Your task to perform on an android device: Go to network settings Image 0: 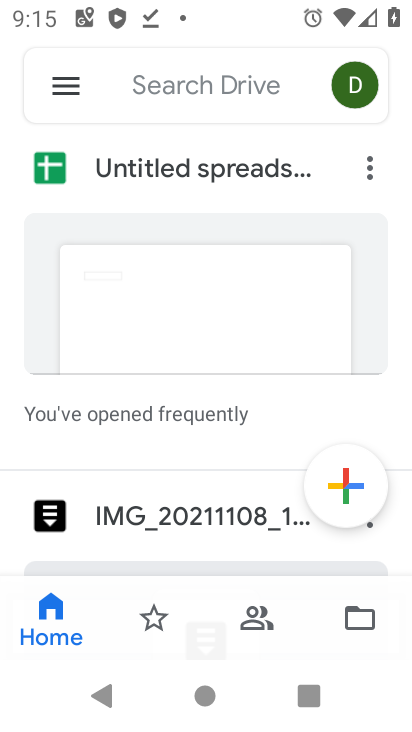
Step 0: press back button
Your task to perform on an android device: Go to network settings Image 1: 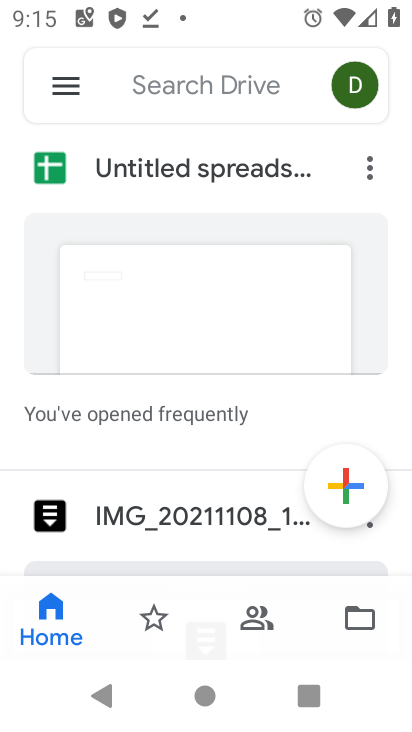
Step 1: press back button
Your task to perform on an android device: Go to network settings Image 2: 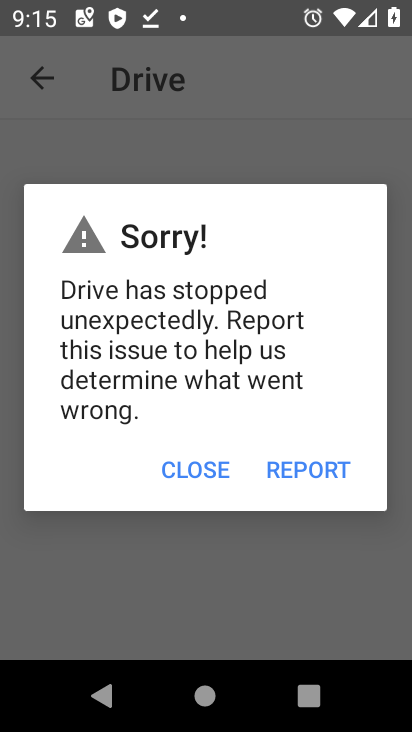
Step 2: press back button
Your task to perform on an android device: Go to network settings Image 3: 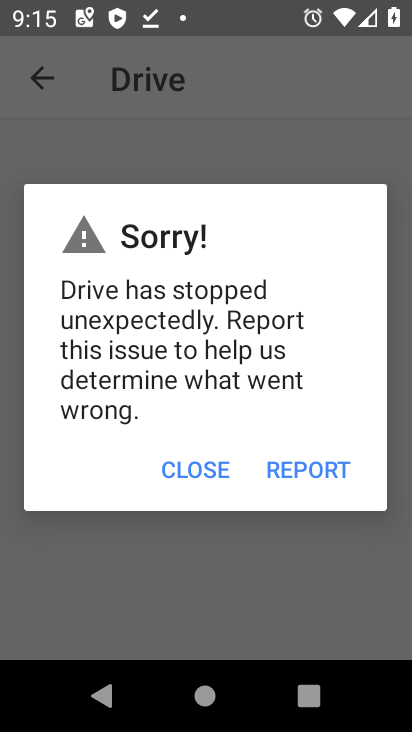
Step 3: click (191, 484)
Your task to perform on an android device: Go to network settings Image 4: 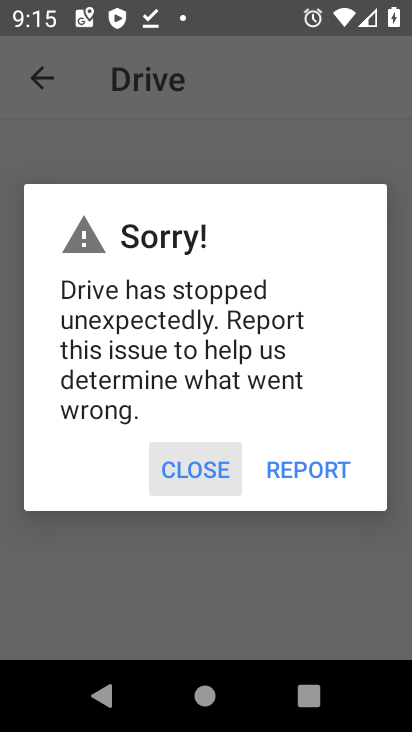
Step 4: click (191, 484)
Your task to perform on an android device: Go to network settings Image 5: 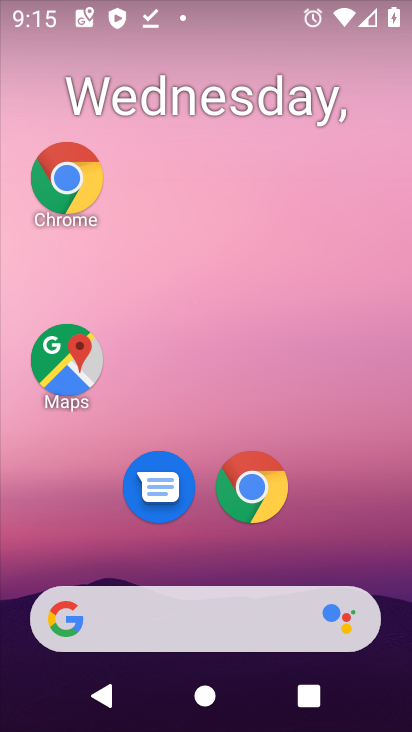
Step 5: drag from (264, 655) to (134, 259)
Your task to perform on an android device: Go to network settings Image 6: 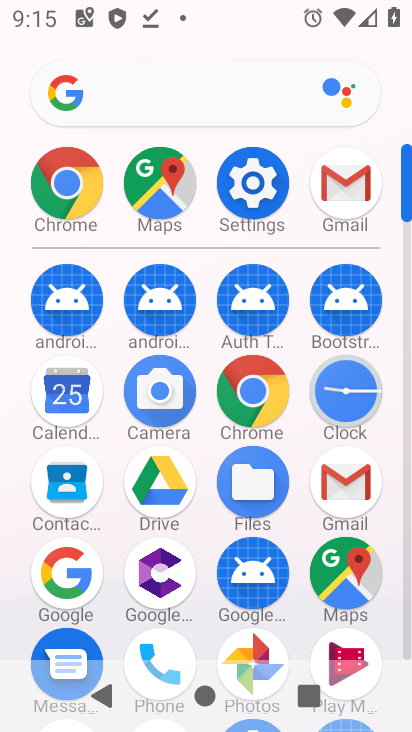
Step 6: click (253, 187)
Your task to perform on an android device: Go to network settings Image 7: 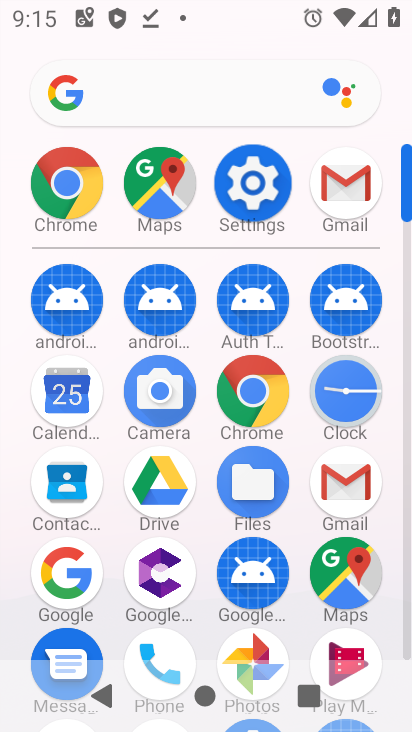
Step 7: click (253, 187)
Your task to perform on an android device: Go to network settings Image 8: 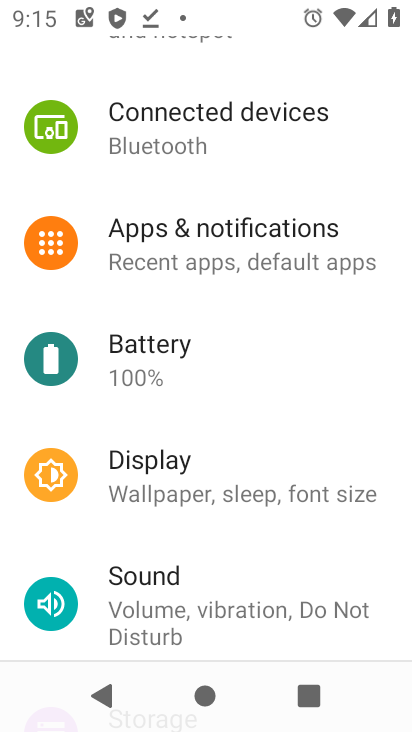
Step 8: click (253, 187)
Your task to perform on an android device: Go to network settings Image 9: 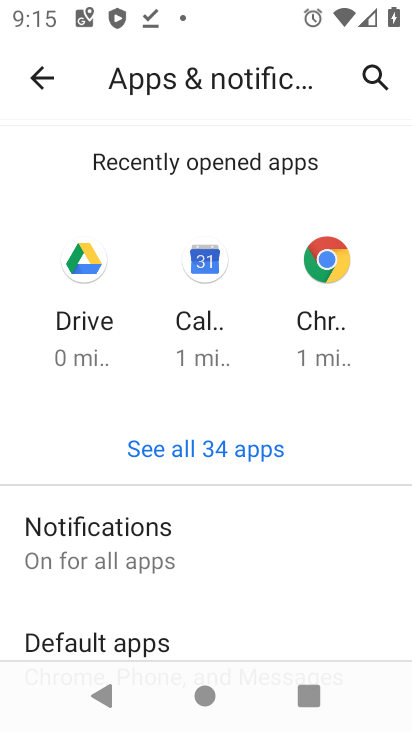
Step 9: click (34, 98)
Your task to perform on an android device: Go to network settings Image 10: 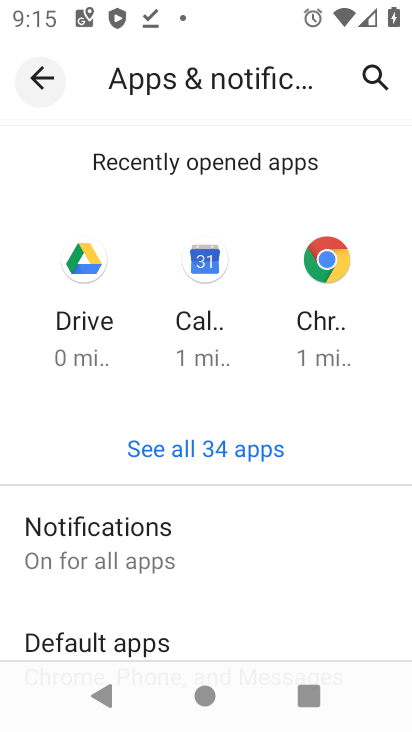
Step 10: click (34, 97)
Your task to perform on an android device: Go to network settings Image 11: 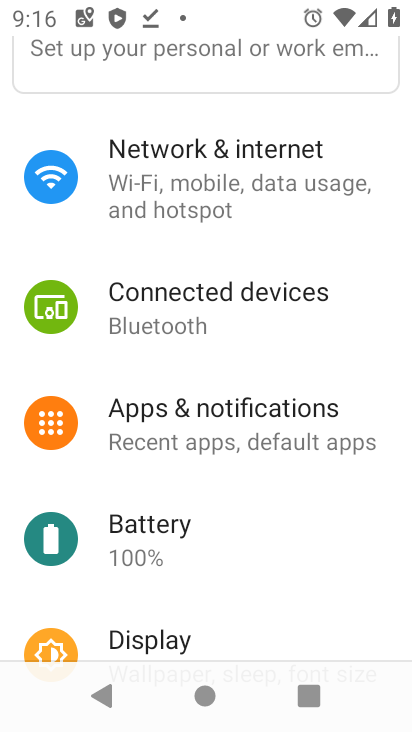
Step 11: click (166, 176)
Your task to perform on an android device: Go to network settings Image 12: 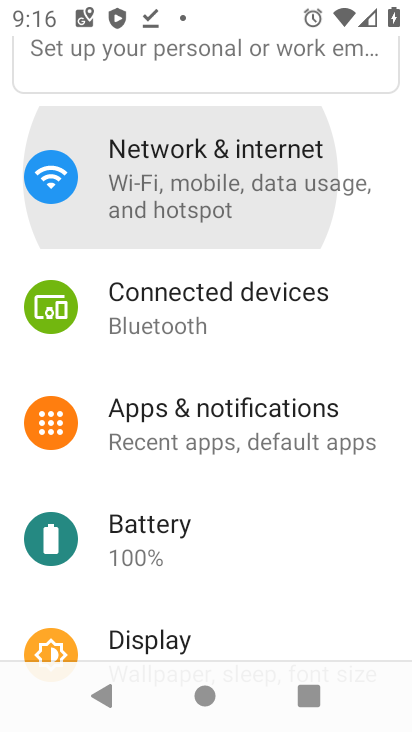
Step 12: click (169, 175)
Your task to perform on an android device: Go to network settings Image 13: 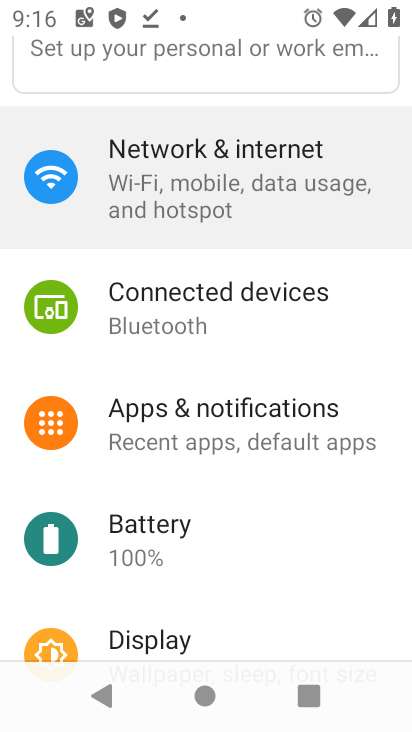
Step 13: click (169, 175)
Your task to perform on an android device: Go to network settings Image 14: 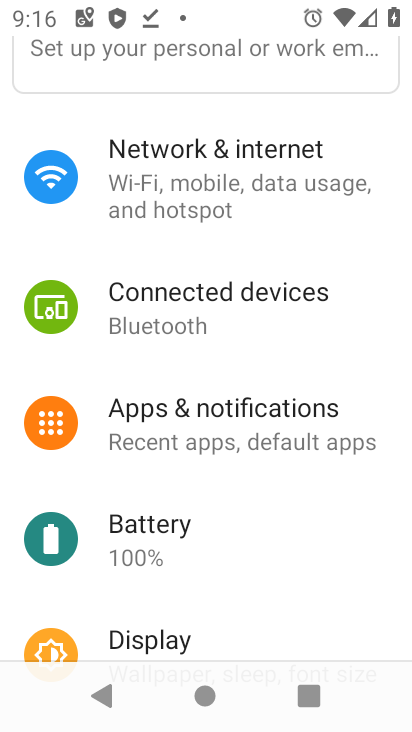
Step 14: click (169, 175)
Your task to perform on an android device: Go to network settings Image 15: 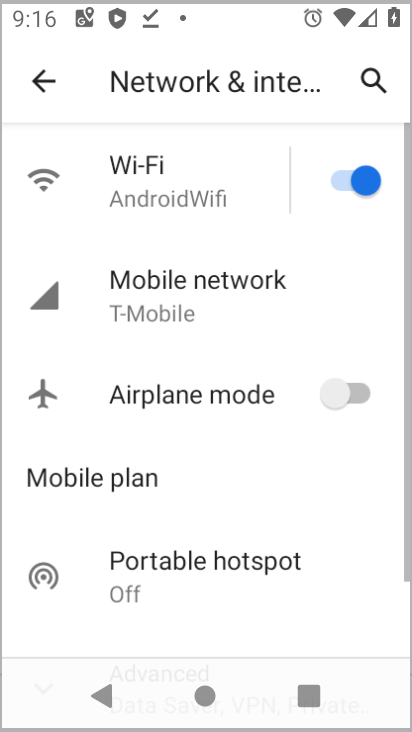
Step 15: click (169, 175)
Your task to perform on an android device: Go to network settings Image 16: 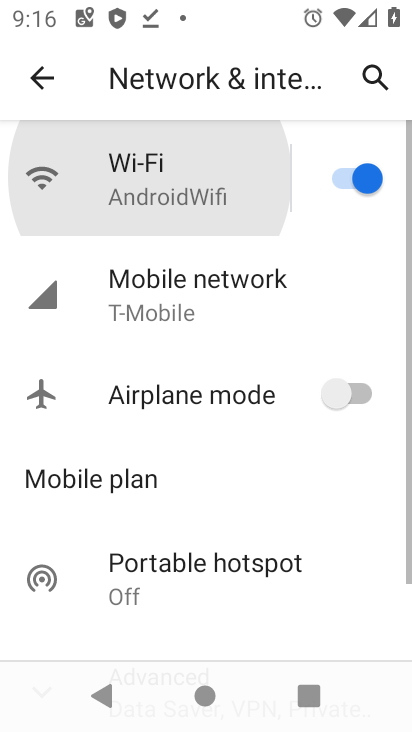
Step 16: click (169, 175)
Your task to perform on an android device: Go to network settings Image 17: 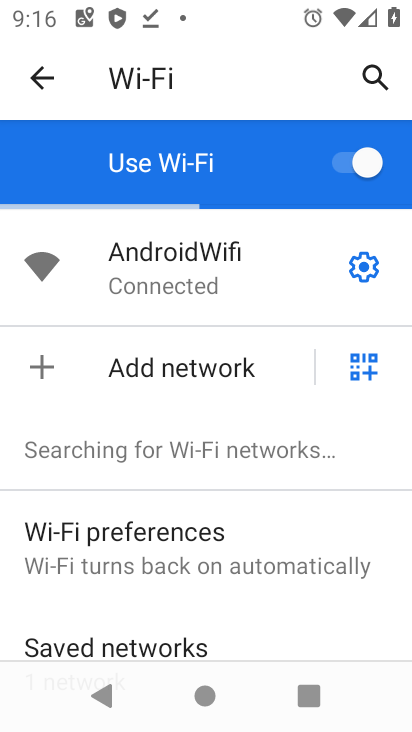
Step 17: click (32, 71)
Your task to perform on an android device: Go to network settings Image 18: 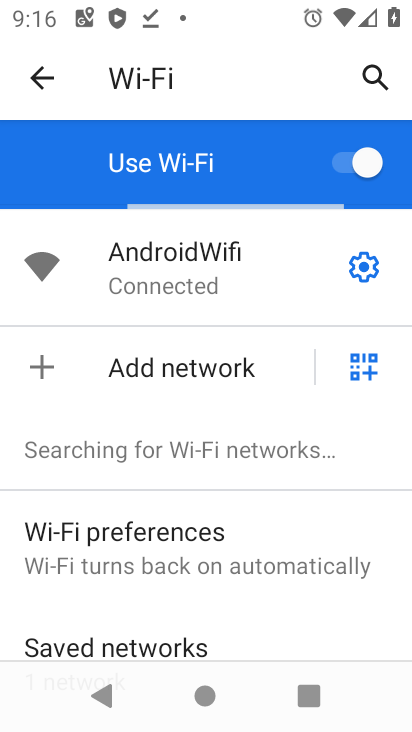
Step 18: click (32, 73)
Your task to perform on an android device: Go to network settings Image 19: 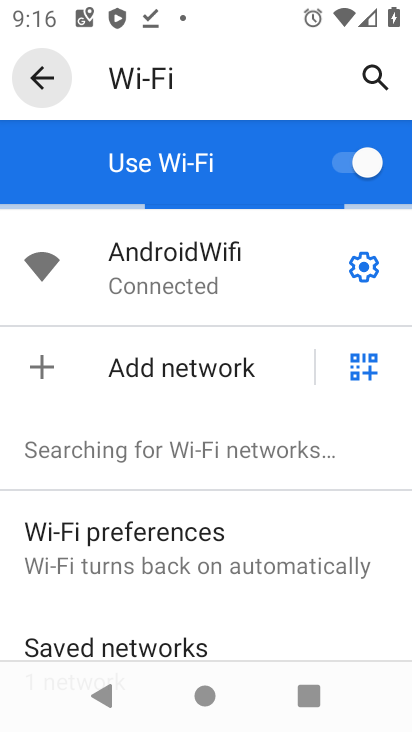
Step 19: click (32, 74)
Your task to perform on an android device: Go to network settings Image 20: 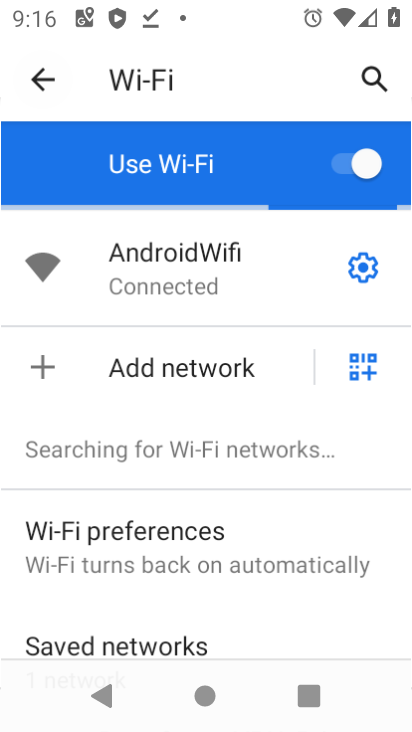
Step 20: click (32, 75)
Your task to perform on an android device: Go to network settings Image 21: 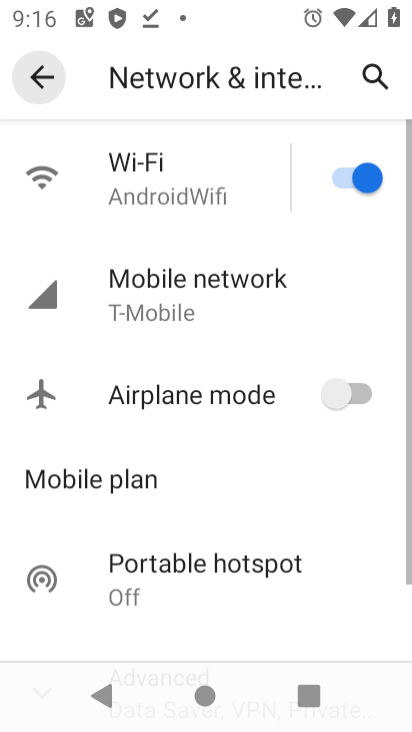
Step 21: click (32, 75)
Your task to perform on an android device: Go to network settings Image 22: 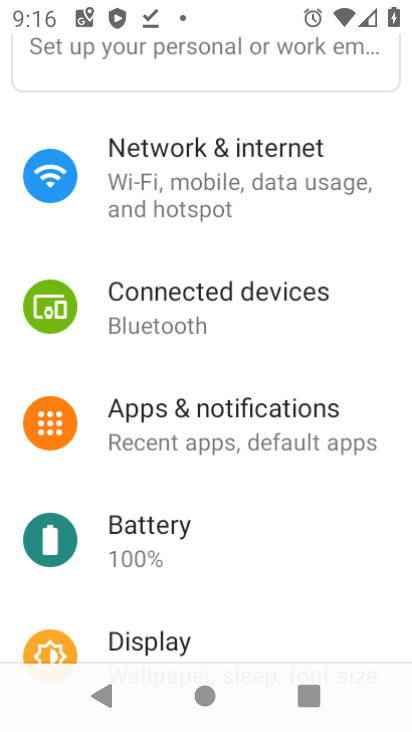
Step 22: click (32, 75)
Your task to perform on an android device: Go to network settings Image 23: 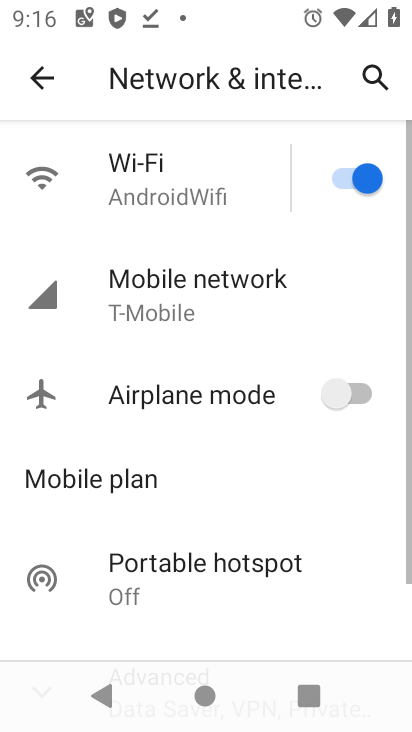
Step 23: task complete